Your task to perform on an android device: Open the phone app and click the voicemail tab. Image 0: 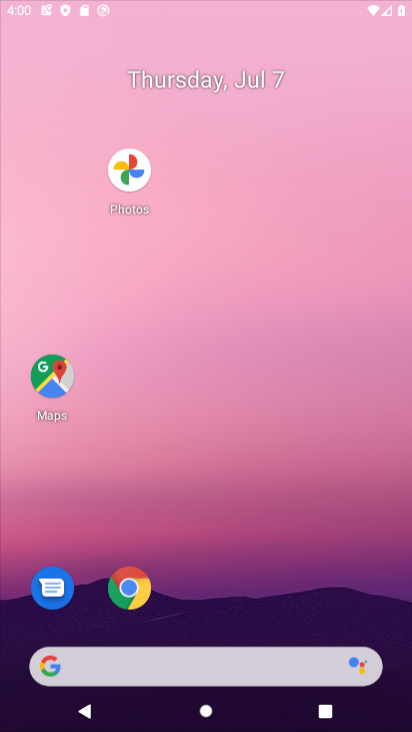
Step 0: click (194, 217)
Your task to perform on an android device: Open the phone app and click the voicemail tab. Image 1: 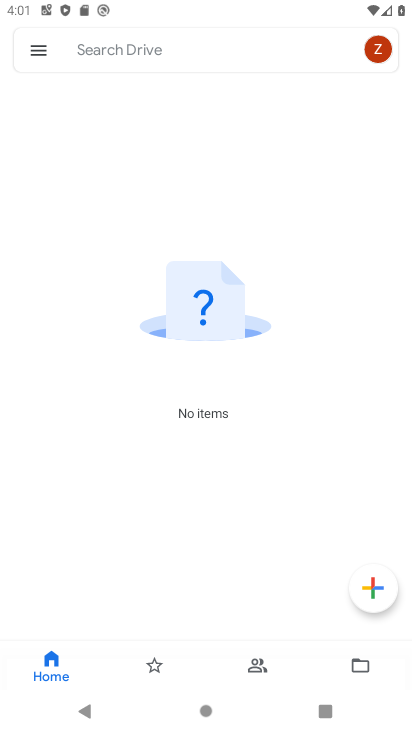
Step 1: press back button
Your task to perform on an android device: Open the phone app and click the voicemail tab. Image 2: 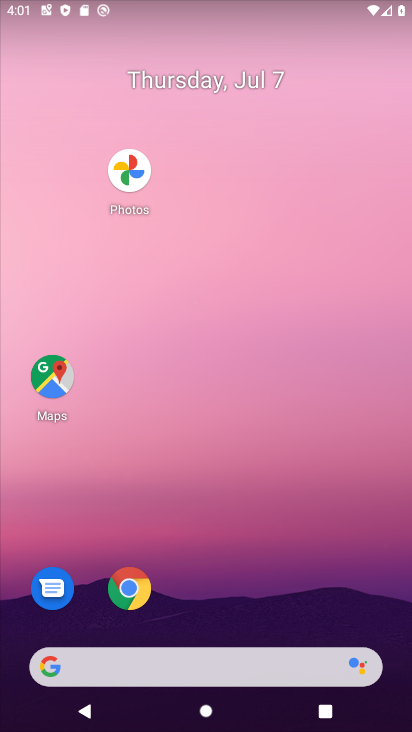
Step 2: drag from (250, 721) to (233, 9)
Your task to perform on an android device: Open the phone app and click the voicemail tab. Image 3: 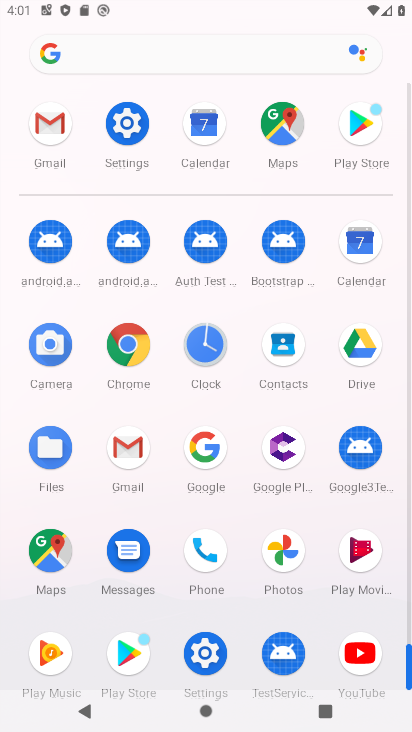
Step 3: click (219, 551)
Your task to perform on an android device: Open the phone app and click the voicemail tab. Image 4: 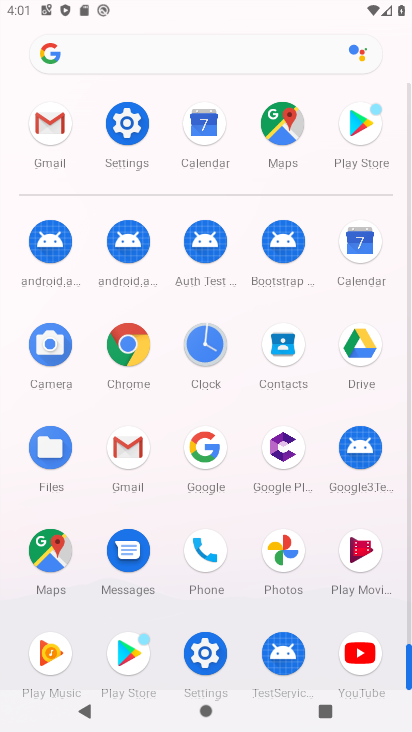
Step 4: click (219, 551)
Your task to perform on an android device: Open the phone app and click the voicemail tab. Image 5: 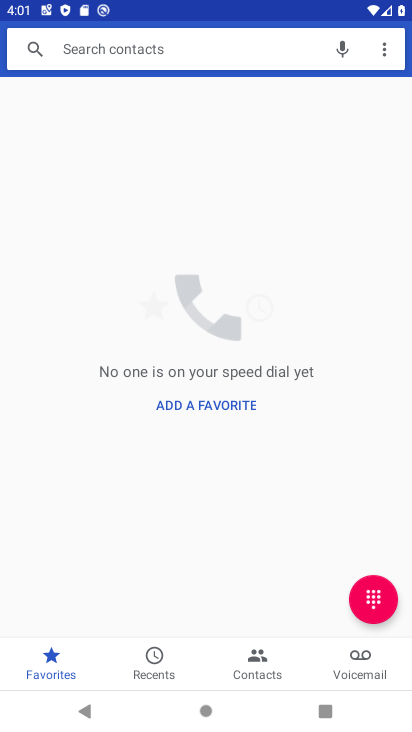
Step 5: click (343, 651)
Your task to perform on an android device: Open the phone app and click the voicemail tab. Image 6: 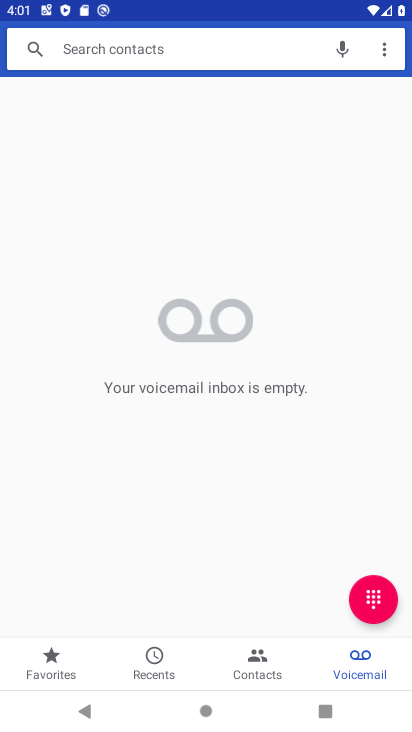
Step 6: click (354, 660)
Your task to perform on an android device: Open the phone app and click the voicemail tab. Image 7: 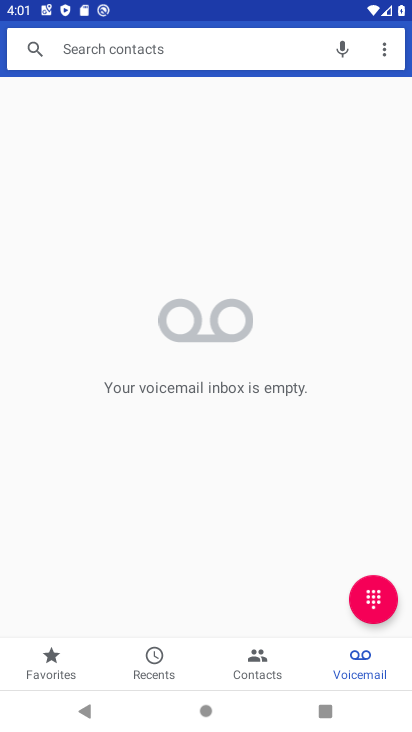
Step 7: task complete